Your task to perform on an android device: move an email to a new category in the gmail app Image 0: 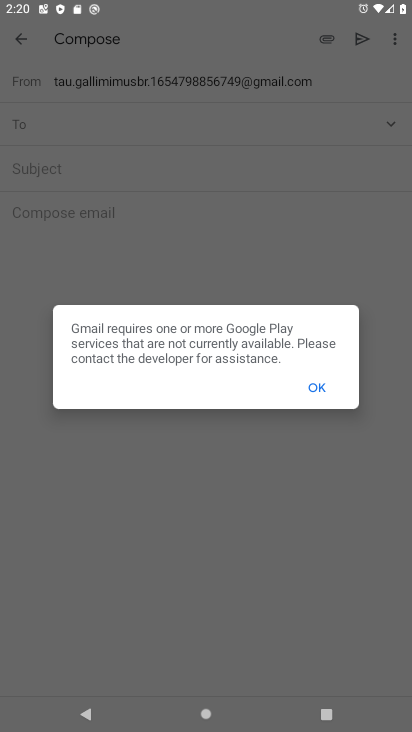
Step 0: press home button
Your task to perform on an android device: move an email to a new category in the gmail app Image 1: 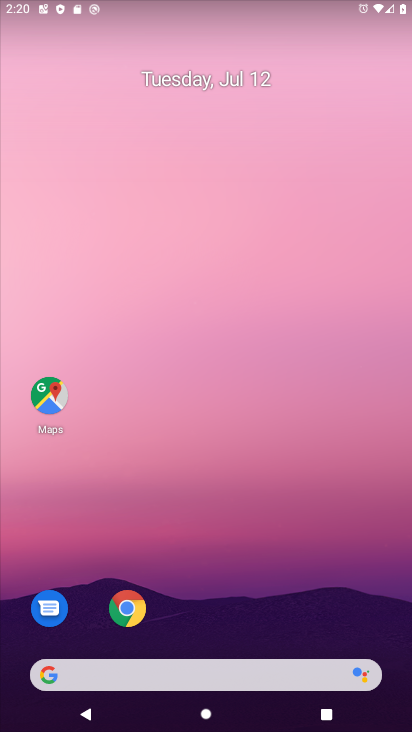
Step 1: drag from (274, 546) to (232, 39)
Your task to perform on an android device: move an email to a new category in the gmail app Image 2: 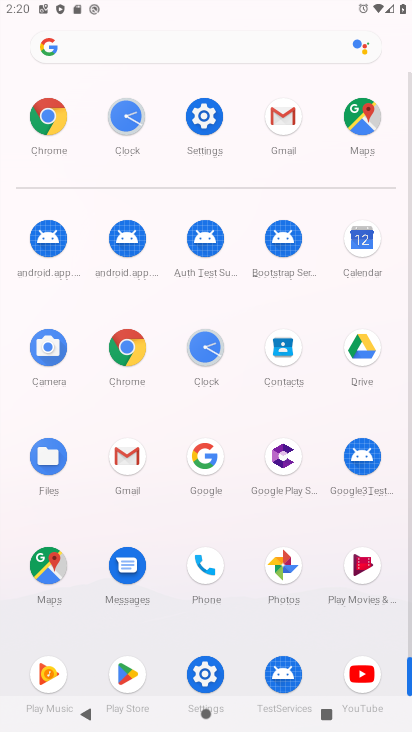
Step 2: click (290, 113)
Your task to perform on an android device: move an email to a new category in the gmail app Image 3: 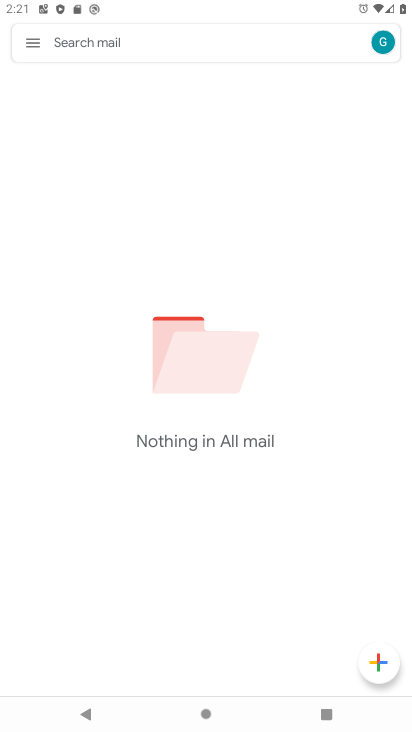
Step 3: task complete